Your task to perform on an android device: Open calendar and show me the third week of next month Image 0: 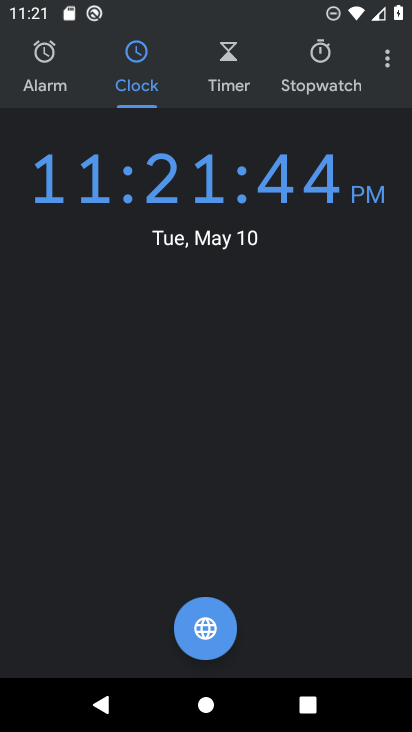
Step 0: press home button
Your task to perform on an android device: Open calendar and show me the third week of next month Image 1: 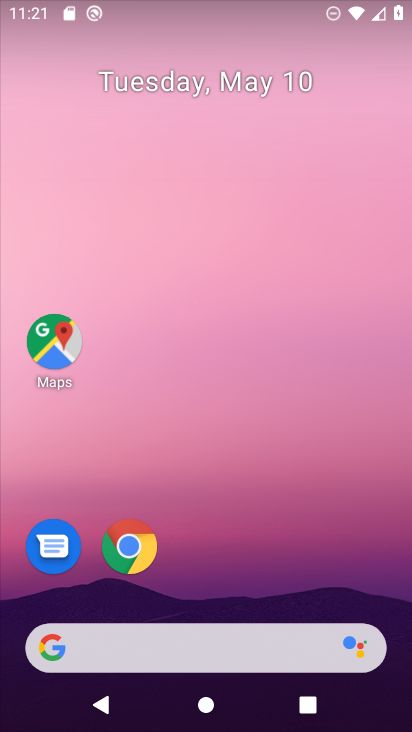
Step 1: drag from (274, 595) to (317, 436)
Your task to perform on an android device: Open calendar and show me the third week of next month Image 2: 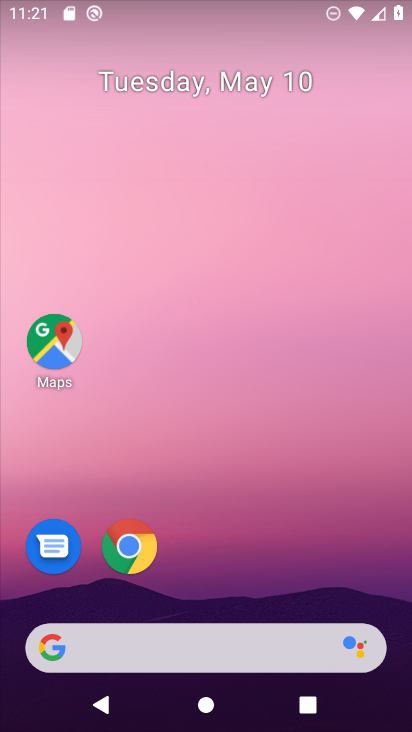
Step 2: drag from (258, 396) to (401, 437)
Your task to perform on an android device: Open calendar and show me the third week of next month Image 3: 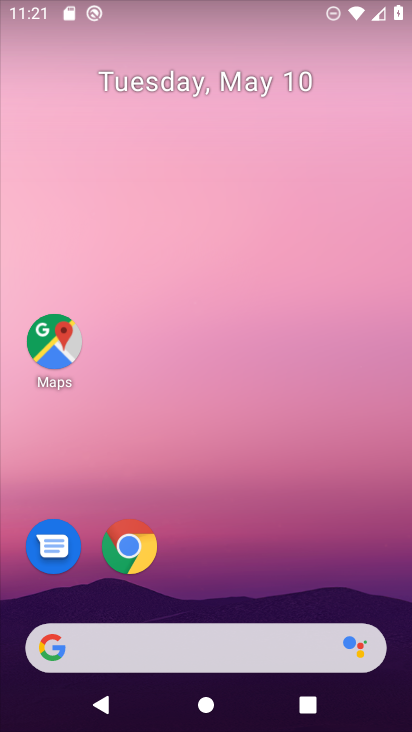
Step 3: drag from (281, 507) to (181, 20)
Your task to perform on an android device: Open calendar and show me the third week of next month Image 4: 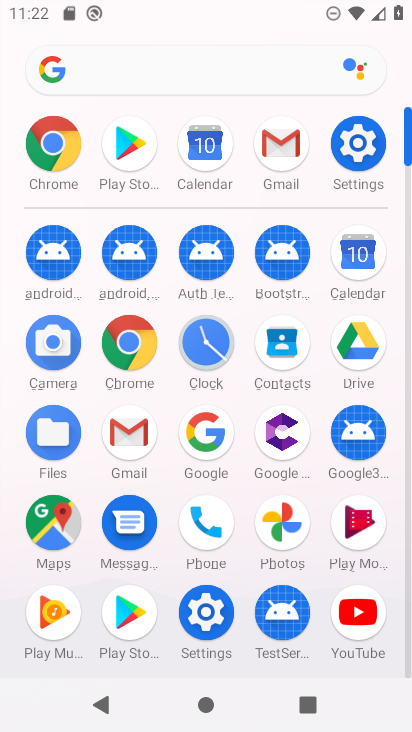
Step 4: click (367, 268)
Your task to perform on an android device: Open calendar and show me the third week of next month Image 5: 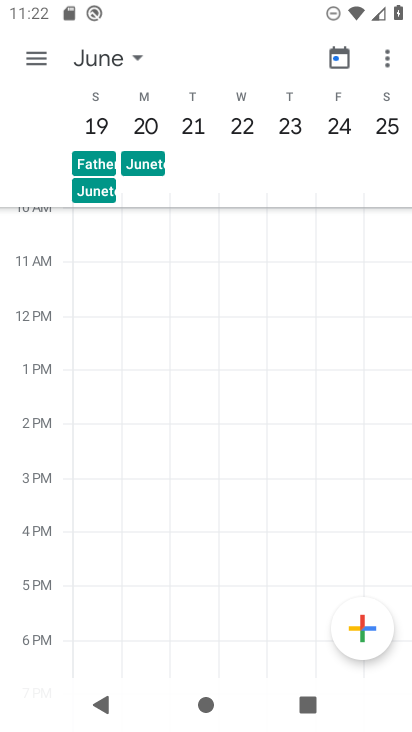
Step 5: click (106, 51)
Your task to perform on an android device: Open calendar and show me the third week of next month Image 6: 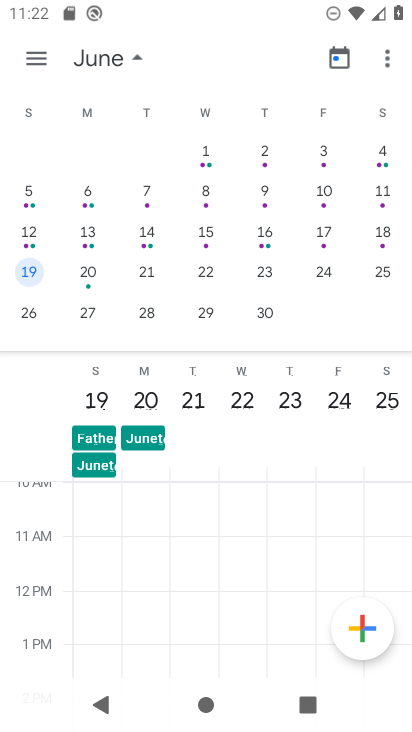
Step 6: task complete